Your task to perform on an android device: Do I have any events this weekend? Image 0: 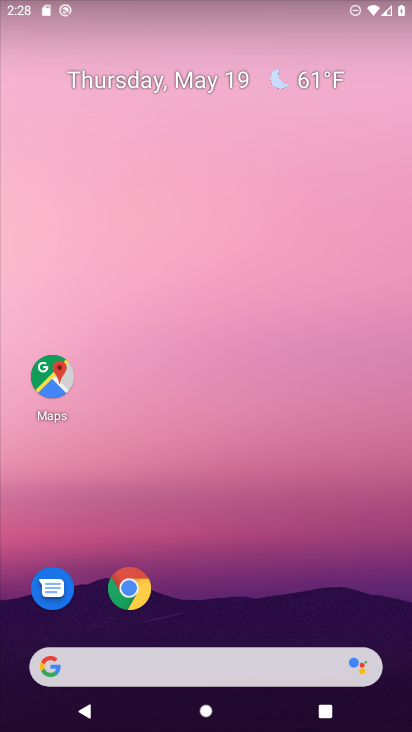
Step 0: drag from (372, 598) to (361, 17)
Your task to perform on an android device: Do I have any events this weekend? Image 1: 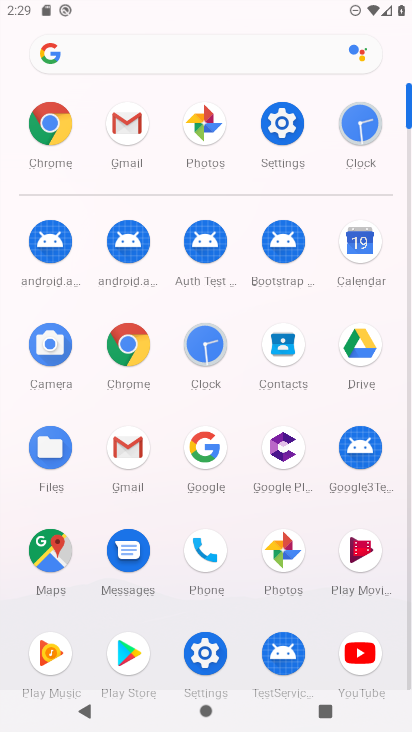
Step 1: click (361, 241)
Your task to perform on an android device: Do I have any events this weekend? Image 2: 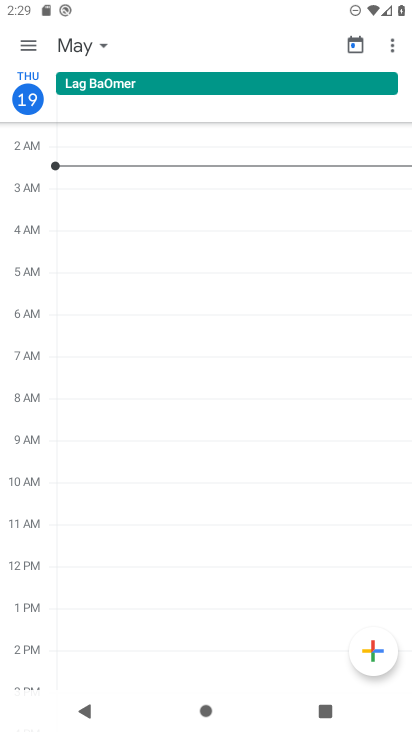
Step 2: click (32, 44)
Your task to perform on an android device: Do I have any events this weekend? Image 3: 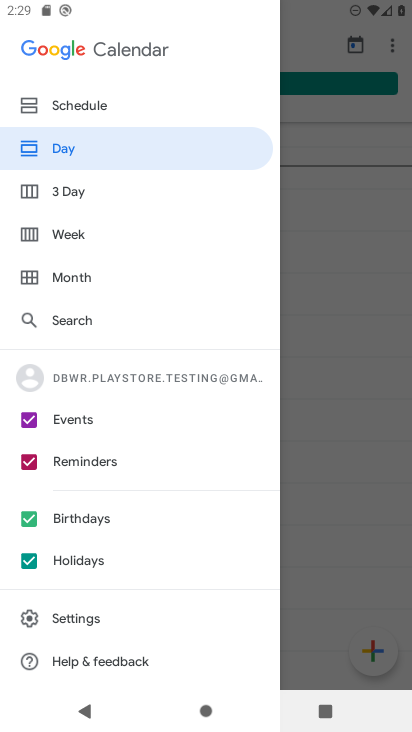
Step 3: click (71, 103)
Your task to perform on an android device: Do I have any events this weekend? Image 4: 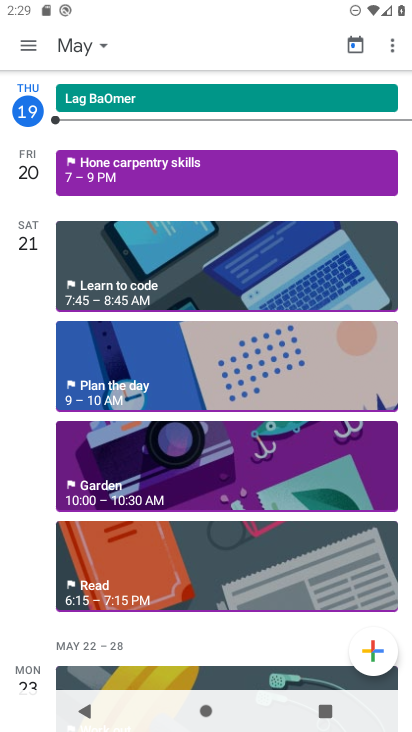
Step 4: click (32, 40)
Your task to perform on an android device: Do I have any events this weekend? Image 5: 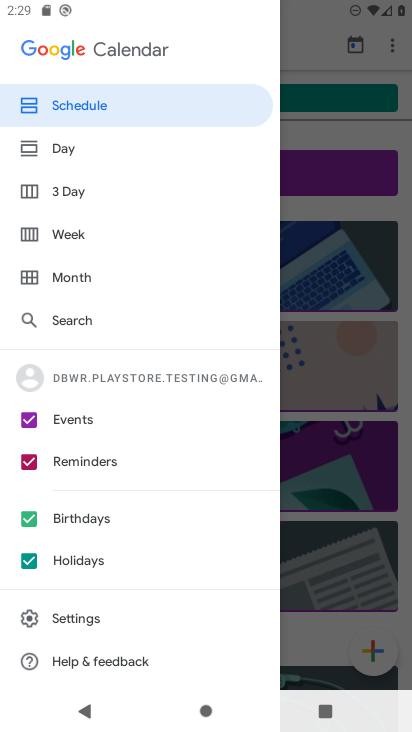
Step 5: click (70, 241)
Your task to perform on an android device: Do I have any events this weekend? Image 6: 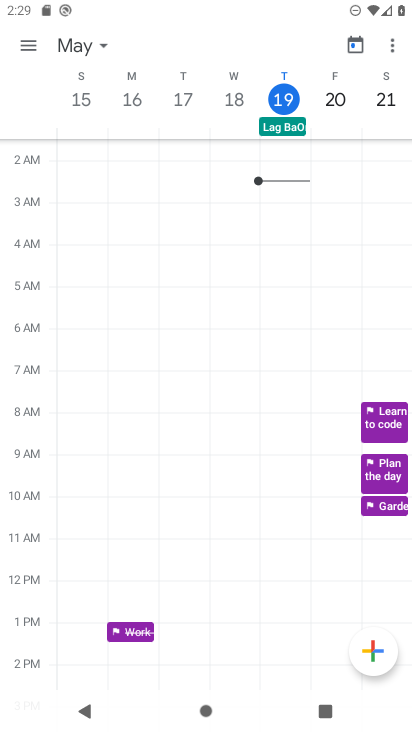
Step 6: click (23, 45)
Your task to perform on an android device: Do I have any events this weekend? Image 7: 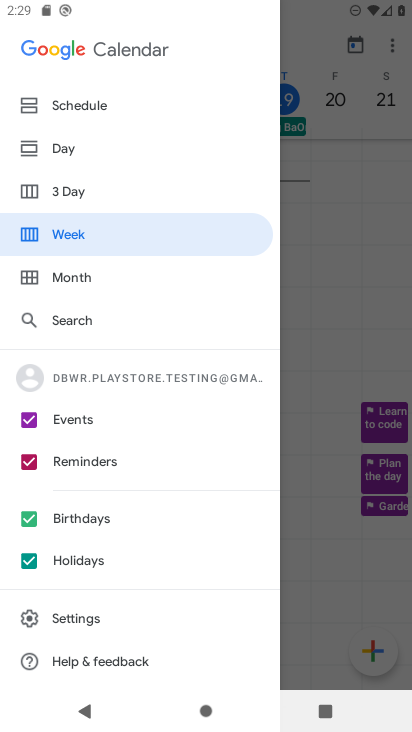
Step 7: click (30, 457)
Your task to perform on an android device: Do I have any events this weekend? Image 8: 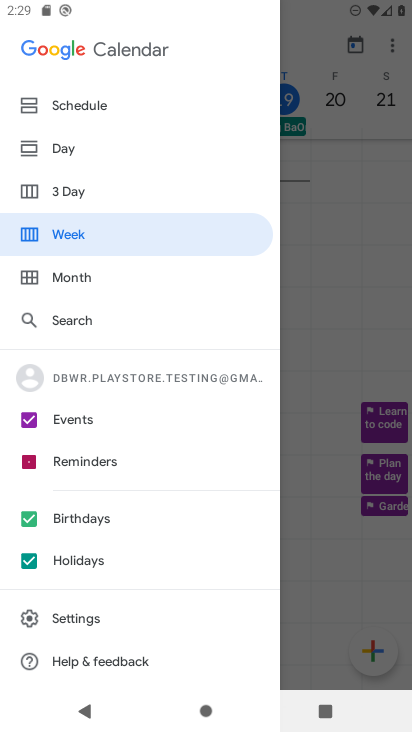
Step 8: click (25, 521)
Your task to perform on an android device: Do I have any events this weekend? Image 9: 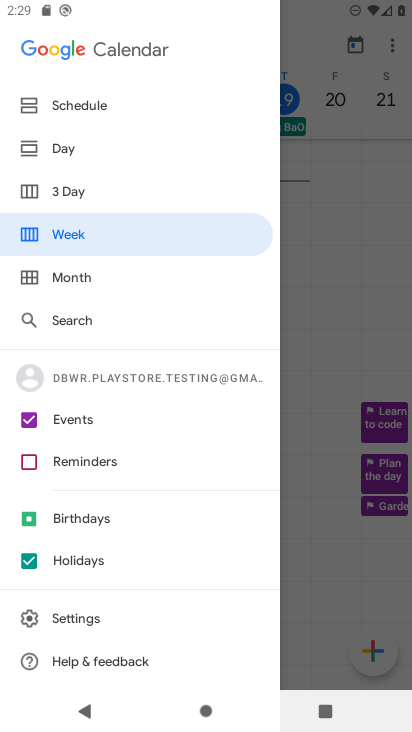
Step 9: click (28, 561)
Your task to perform on an android device: Do I have any events this weekend? Image 10: 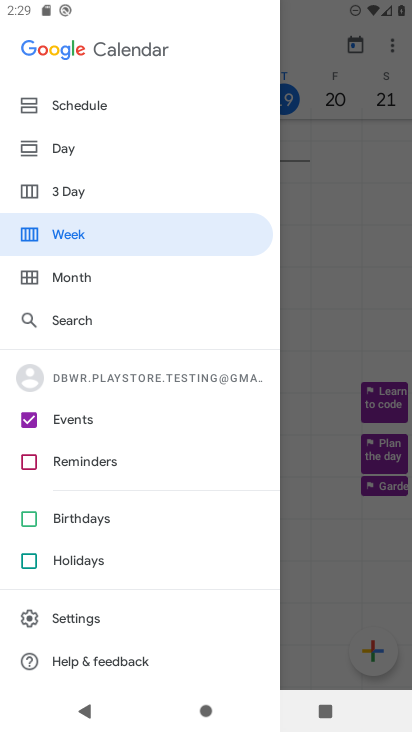
Step 10: click (54, 242)
Your task to perform on an android device: Do I have any events this weekend? Image 11: 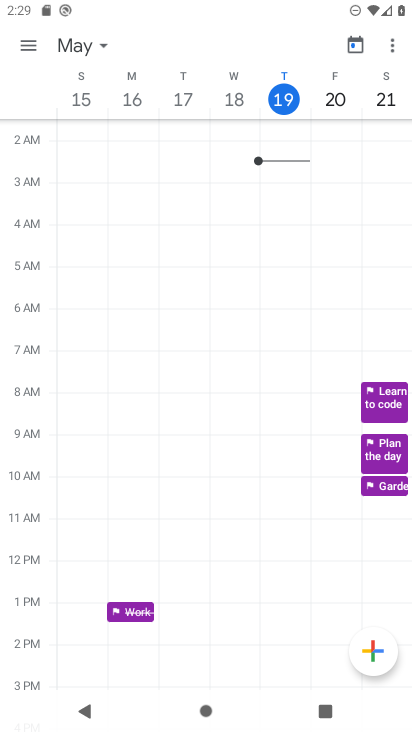
Step 11: task complete